Your task to perform on an android device: Open location settings Image 0: 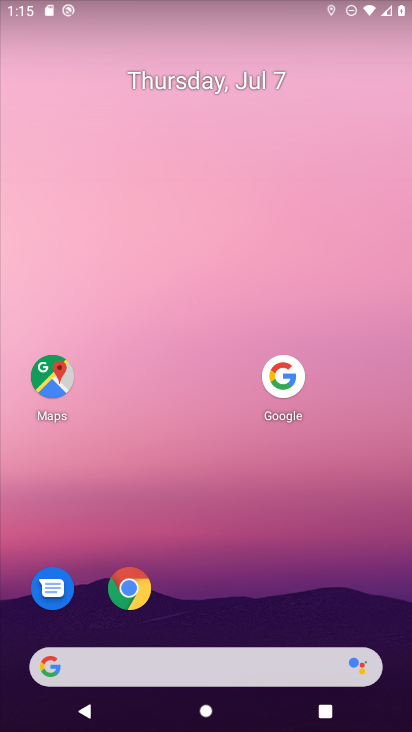
Step 0: drag from (208, 659) to (307, 12)
Your task to perform on an android device: Open location settings Image 1: 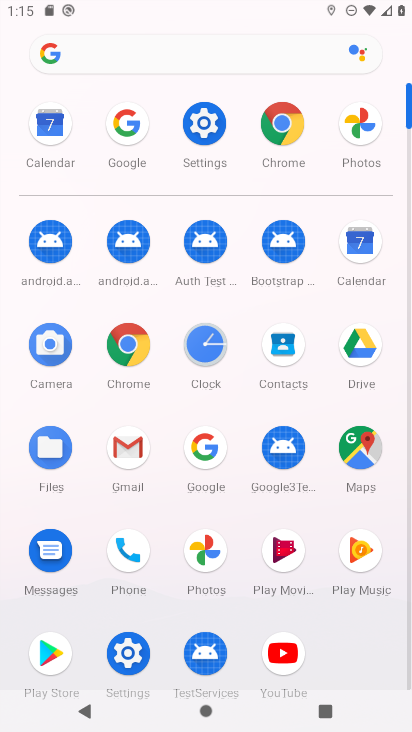
Step 1: click (200, 128)
Your task to perform on an android device: Open location settings Image 2: 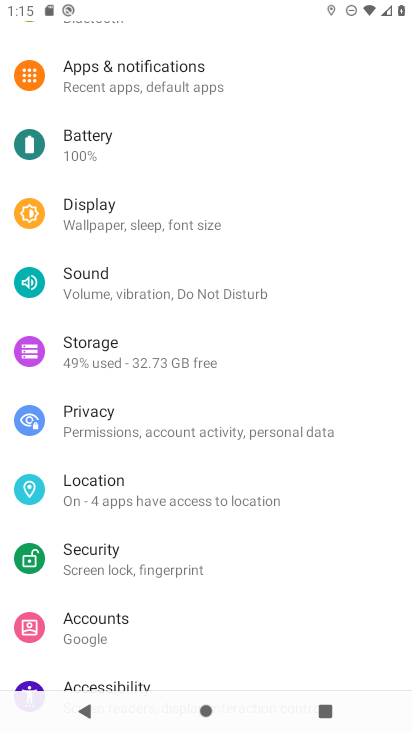
Step 2: click (93, 498)
Your task to perform on an android device: Open location settings Image 3: 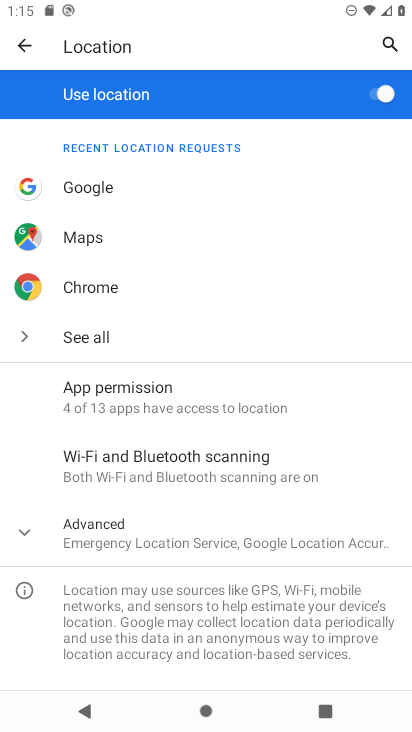
Step 3: click (101, 332)
Your task to perform on an android device: Open location settings Image 4: 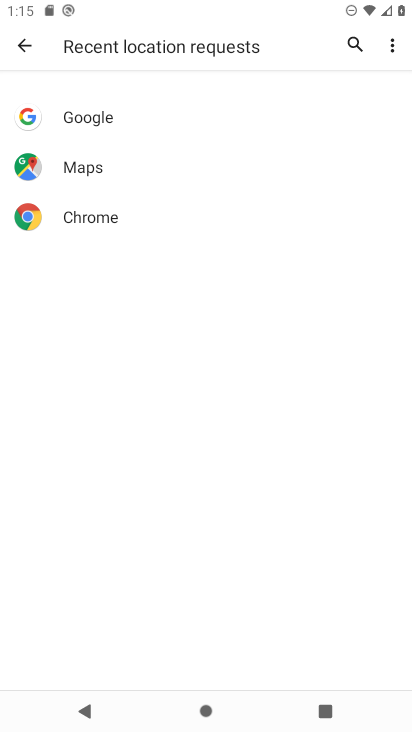
Step 4: click (38, 40)
Your task to perform on an android device: Open location settings Image 5: 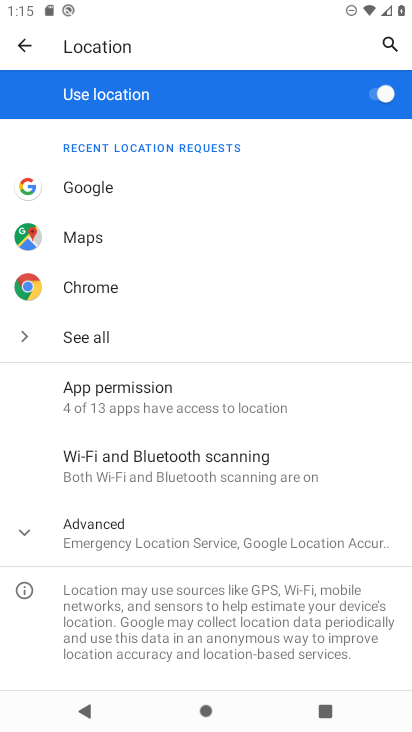
Step 5: task complete